Your task to perform on an android device: set the stopwatch Image 0: 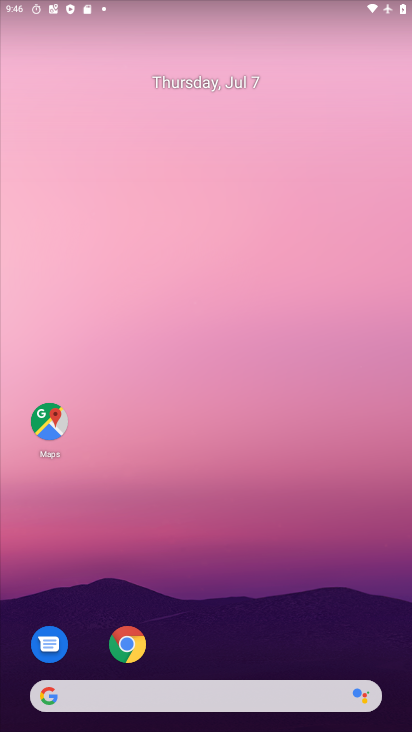
Step 0: drag from (285, 618) to (254, 118)
Your task to perform on an android device: set the stopwatch Image 1: 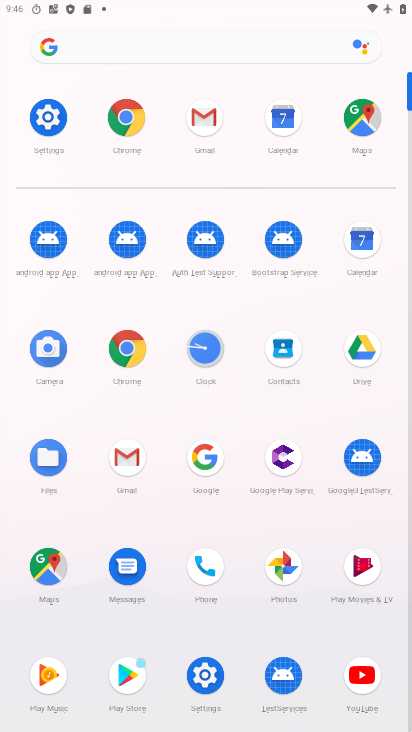
Step 1: click (203, 350)
Your task to perform on an android device: set the stopwatch Image 2: 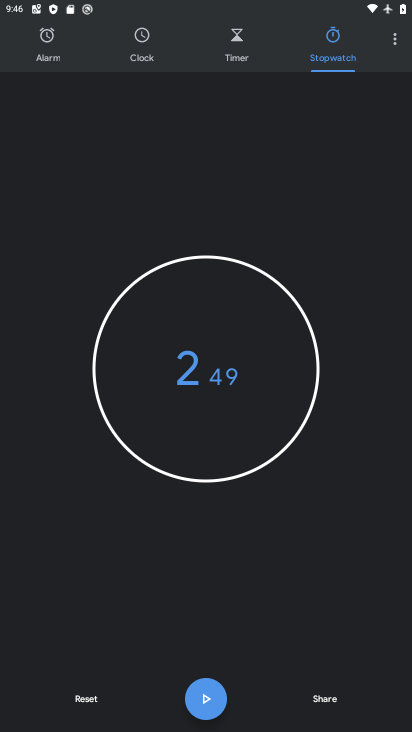
Step 2: task complete